Your task to perform on an android device: allow cookies in the chrome app Image 0: 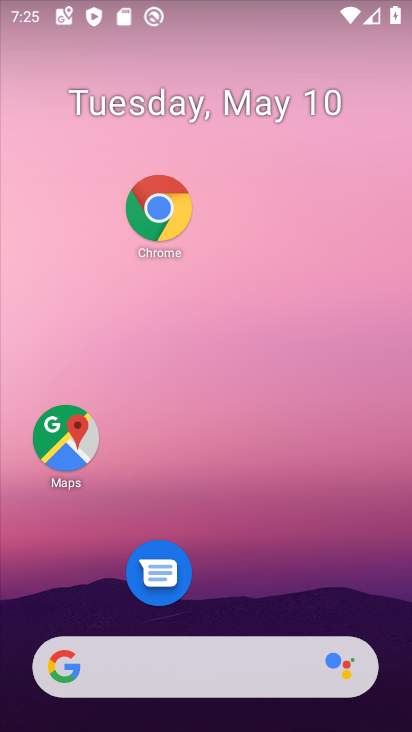
Step 0: drag from (267, 713) to (349, 335)
Your task to perform on an android device: allow cookies in the chrome app Image 1: 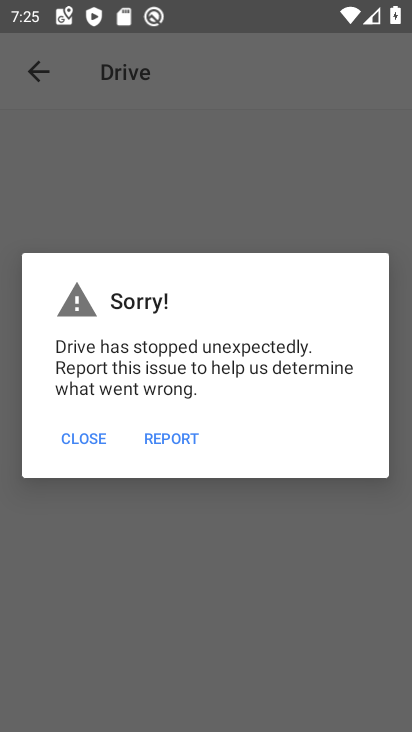
Step 1: press home button
Your task to perform on an android device: allow cookies in the chrome app Image 2: 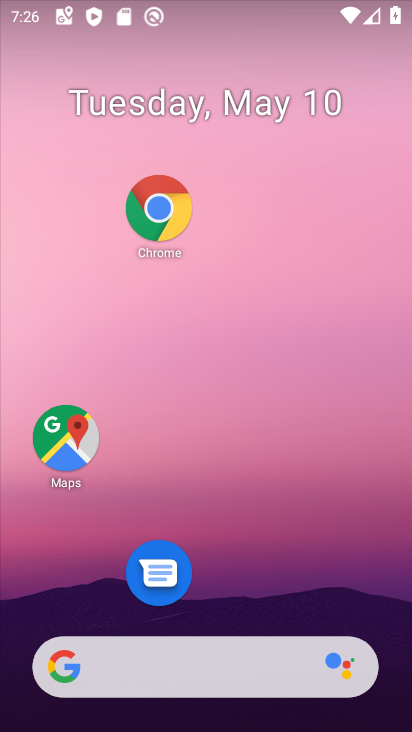
Step 2: click (128, 207)
Your task to perform on an android device: allow cookies in the chrome app Image 3: 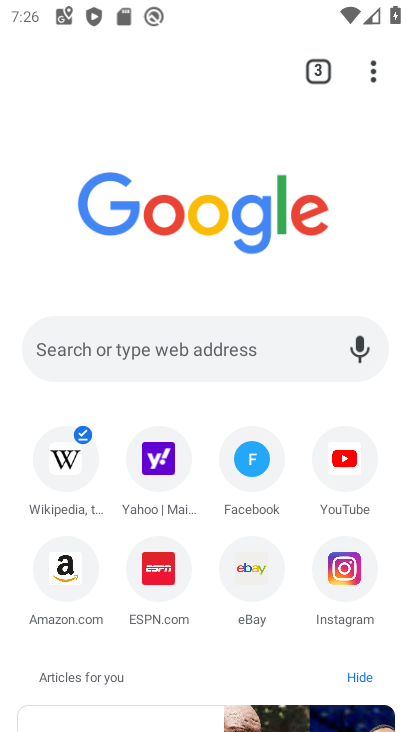
Step 3: click (374, 89)
Your task to perform on an android device: allow cookies in the chrome app Image 4: 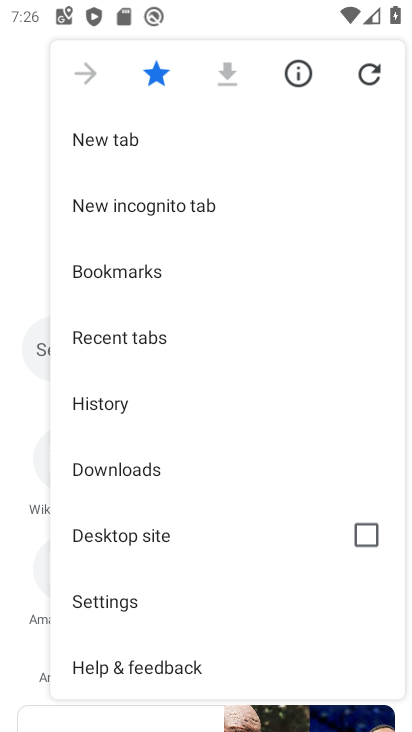
Step 4: click (153, 594)
Your task to perform on an android device: allow cookies in the chrome app Image 5: 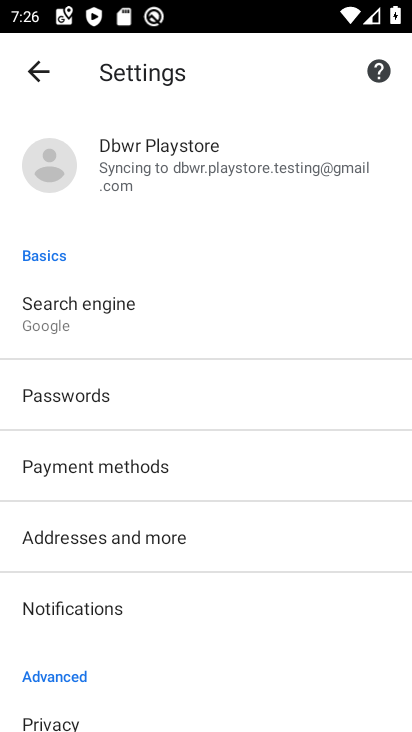
Step 5: drag from (117, 591) to (189, 332)
Your task to perform on an android device: allow cookies in the chrome app Image 6: 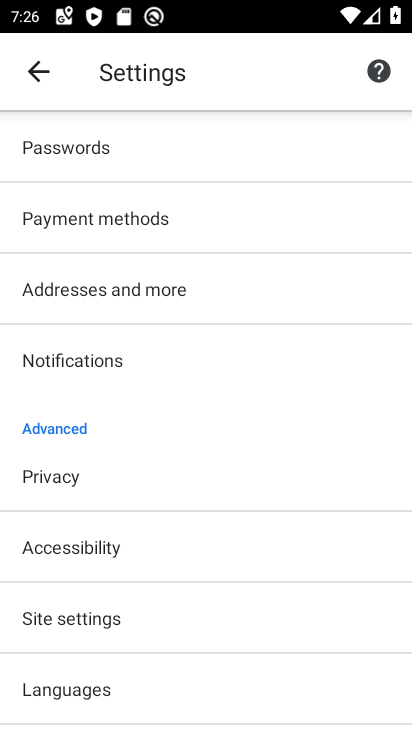
Step 6: click (110, 620)
Your task to perform on an android device: allow cookies in the chrome app Image 7: 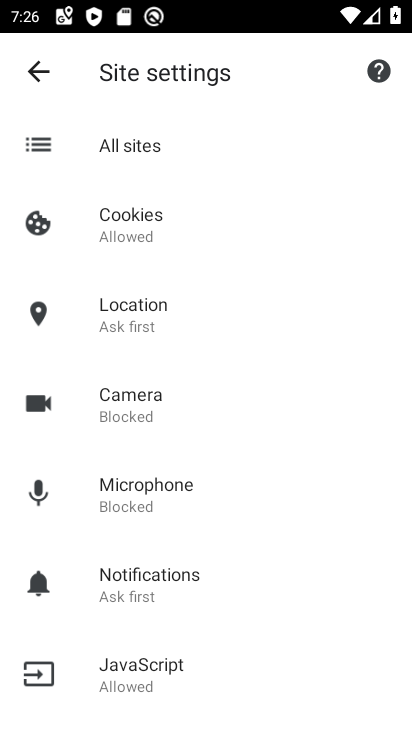
Step 7: click (143, 233)
Your task to perform on an android device: allow cookies in the chrome app Image 8: 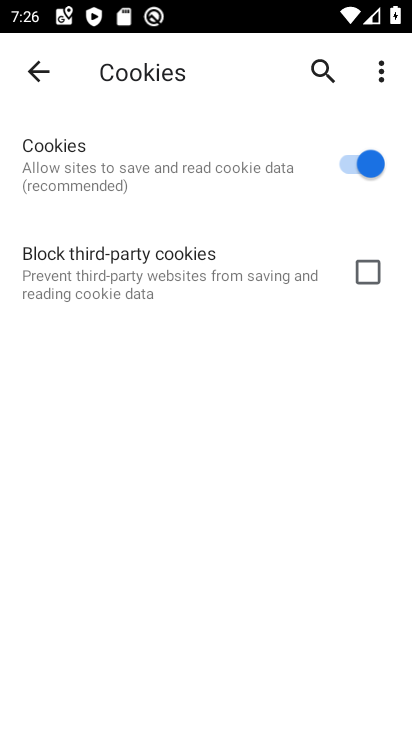
Step 8: click (340, 153)
Your task to perform on an android device: allow cookies in the chrome app Image 9: 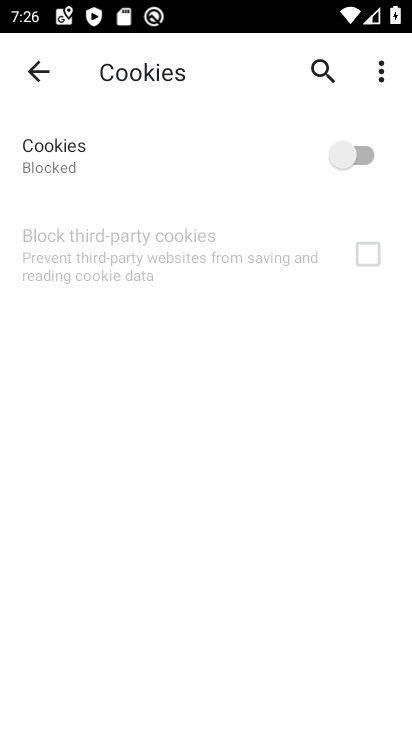
Step 9: click (338, 154)
Your task to perform on an android device: allow cookies in the chrome app Image 10: 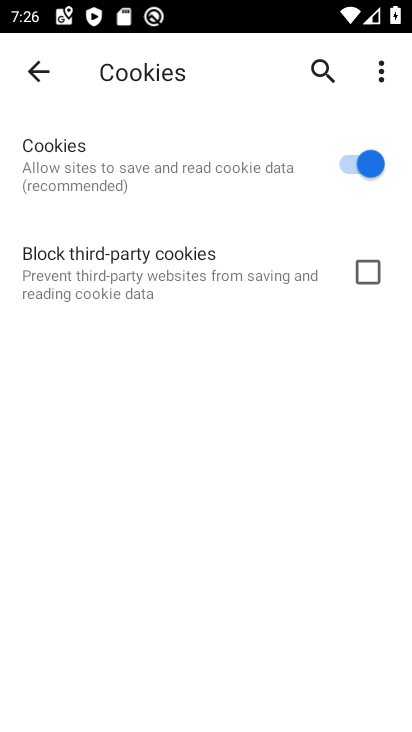
Step 10: task complete